Your task to perform on an android device: turn off javascript in the chrome app Image 0: 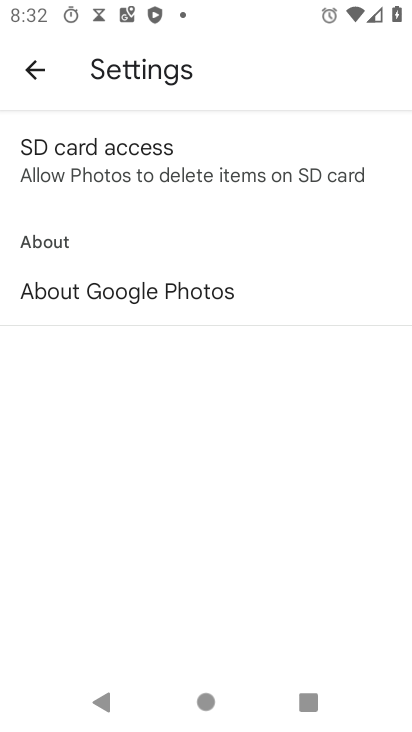
Step 0: press home button
Your task to perform on an android device: turn off javascript in the chrome app Image 1: 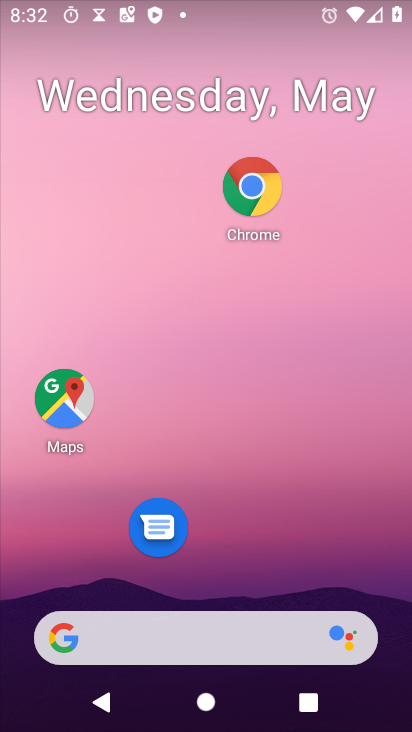
Step 1: click (246, 185)
Your task to perform on an android device: turn off javascript in the chrome app Image 2: 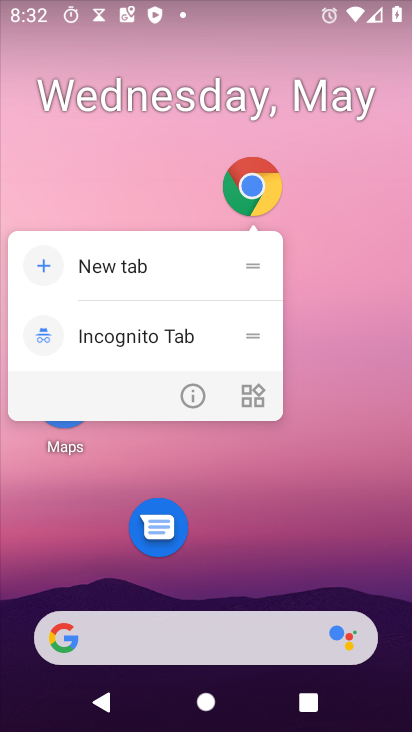
Step 2: click (355, 332)
Your task to perform on an android device: turn off javascript in the chrome app Image 3: 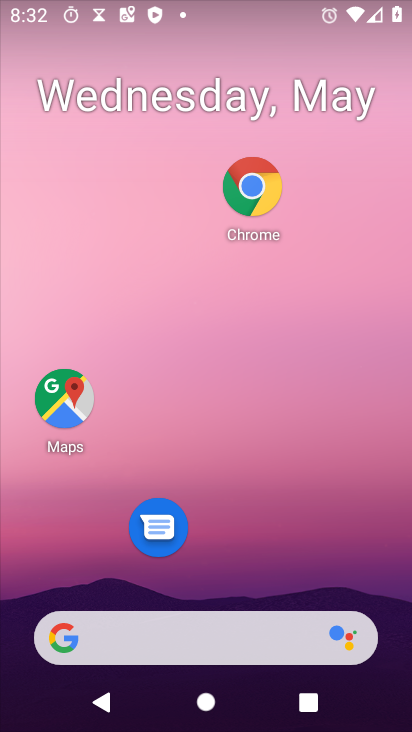
Step 3: drag from (315, 572) to (366, 75)
Your task to perform on an android device: turn off javascript in the chrome app Image 4: 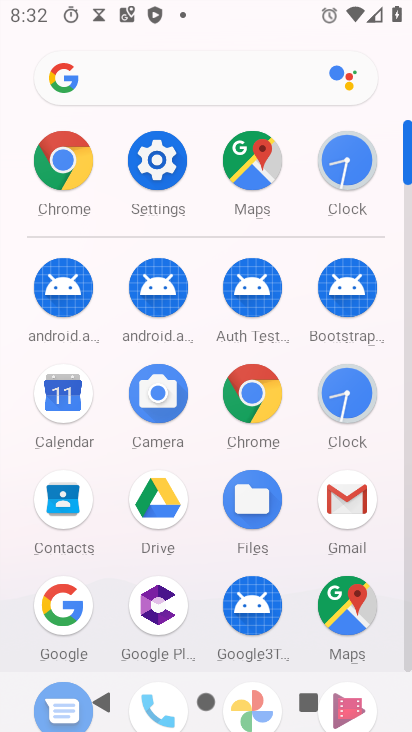
Step 4: click (53, 157)
Your task to perform on an android device: turn off javascript in the chrome app Image 5: 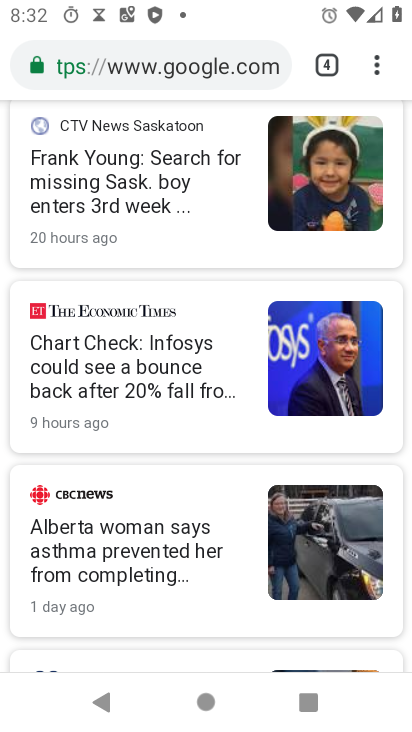
Step 5: drag from (376, 63) to (174, 589)
Your task to perform on an android device: turn off javascript in the chrome app Image 6: 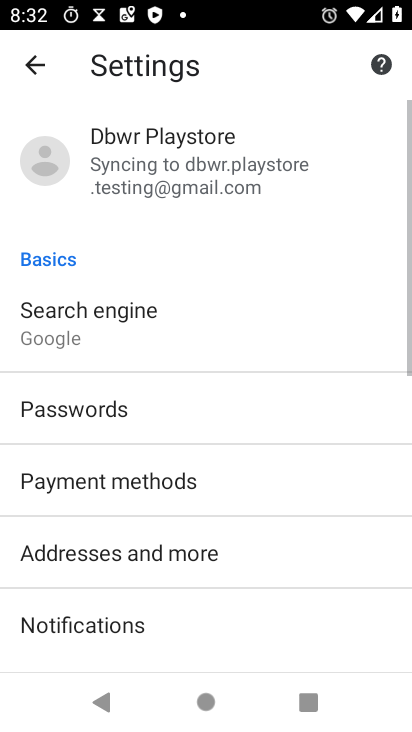
Step 6: drag from (232, 620) to (239, 187)
Your task to perform on an android device: turn off javascript in the chrome app Image 7: 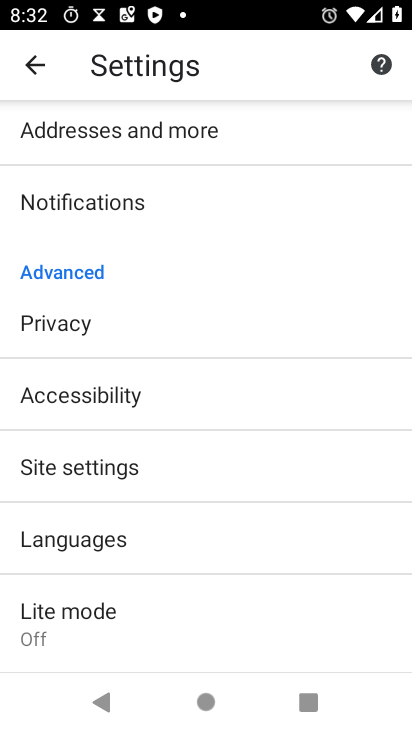
Step 7: click (122, 471)
Your task to perform on an android device: turn off javascript in the chrome app Image 8: 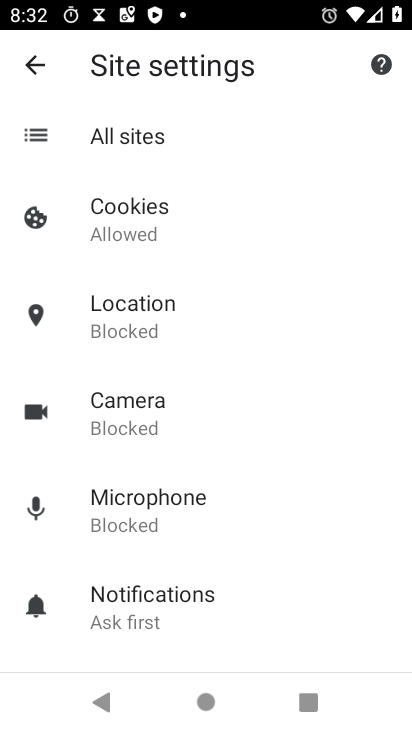
Step 8: drag from (281, 610) to (274, 151)
Your task to perform on an android device: turn off javascript in the chrome app Image 9: 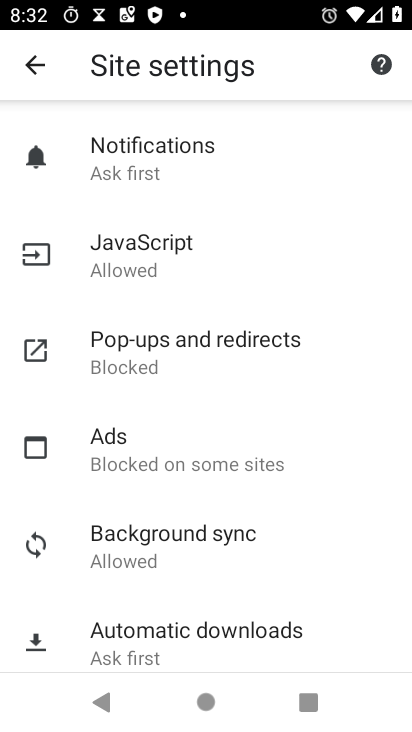
Step 9: click (111, 255)
Your task to perform on an android device: turn off javascript in the chrome app Image 10: 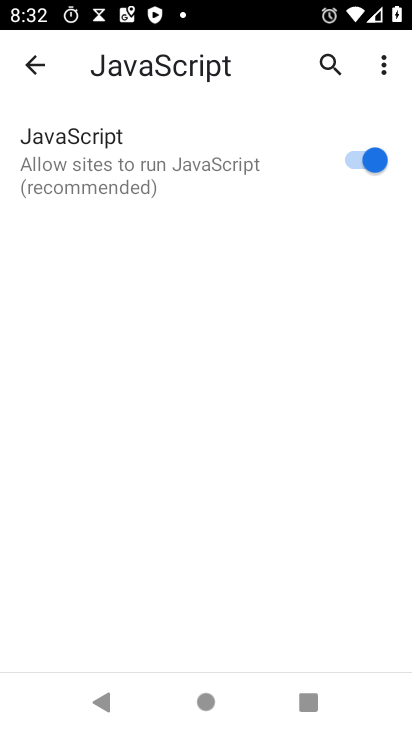
Step 10: click (358, 164)
Your task to perform on an android device: turn off javascript in the chrome app Image 11: 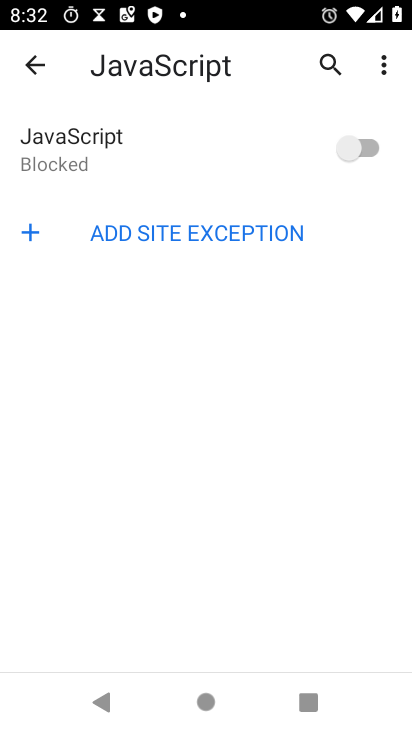
Step 11: task complete